Your task to perform on an android device: create a new album in the google photos Image 0: 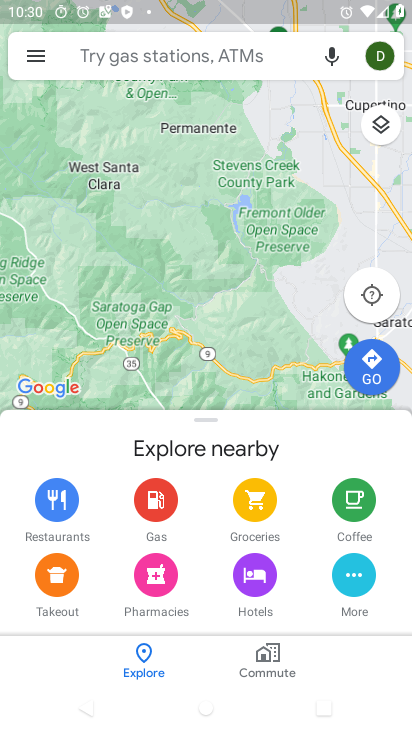
Step 0: press home button
Your task to perform on an android device: create a new album in the google photos Image 1: 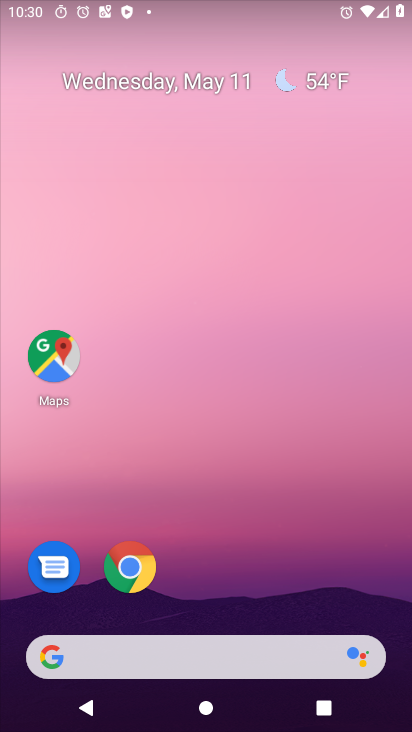
Step 1: drag from (196, 544) to (249, 229)
Your task to perform on an android device: create a new album in the google photos Image 2: 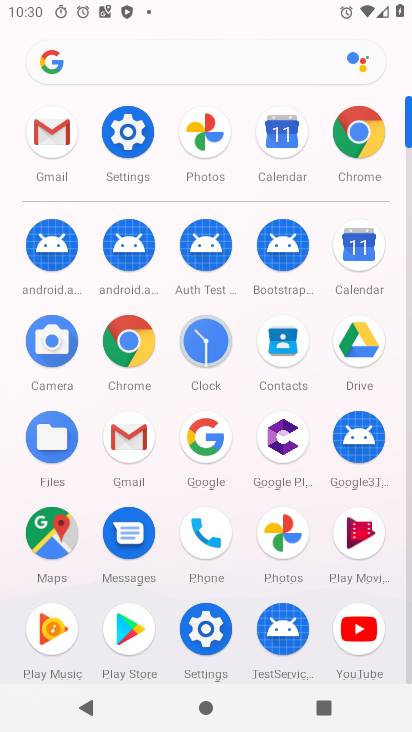
Step 2: click (270, 536)
Your task to perform on an android device: create a new album in the google photos Image 3: 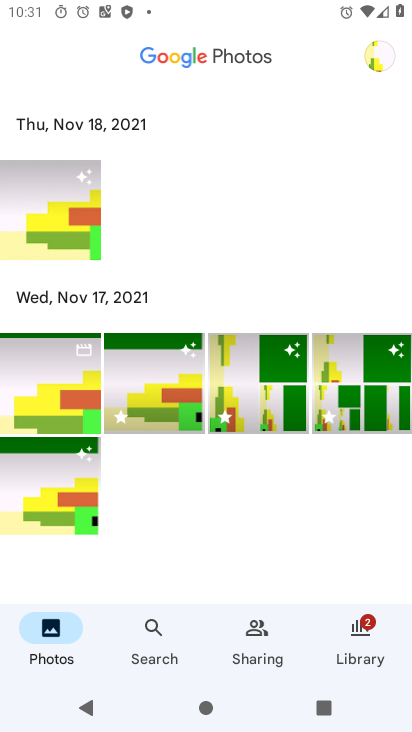
Step 3: click (355, 630)
Your task to perform on an android device: create a new album in the google photos Image 4: 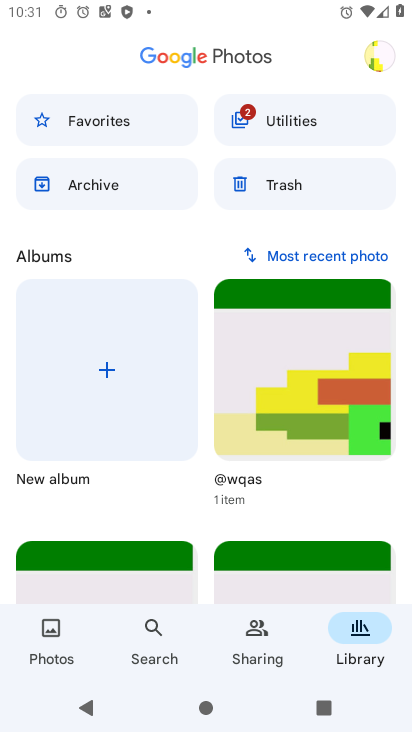
Step 4: click (104, 359)
Your task to perform on an android device: create a new album in the google photos Image 5: 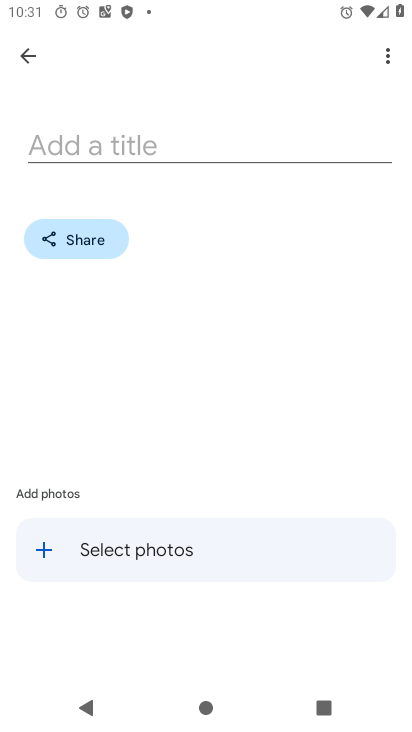
Step 5: click (169, 145)
Your task to perform on an android device: create a new album in the google photos Image 6: 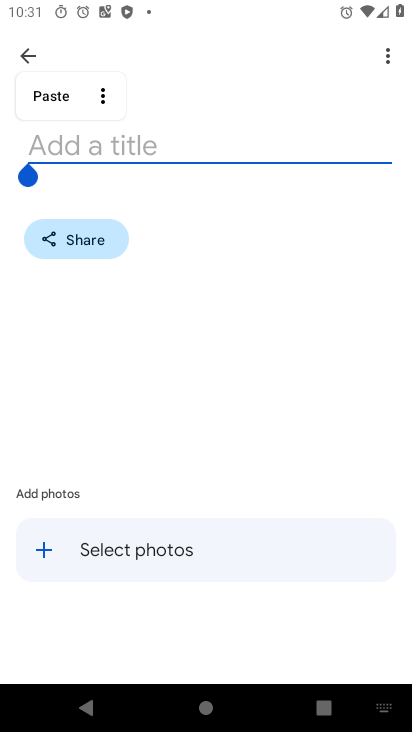
Step 6: type "pubb"
Your task to perform on an android device: create a new album in the google photos Image 7: 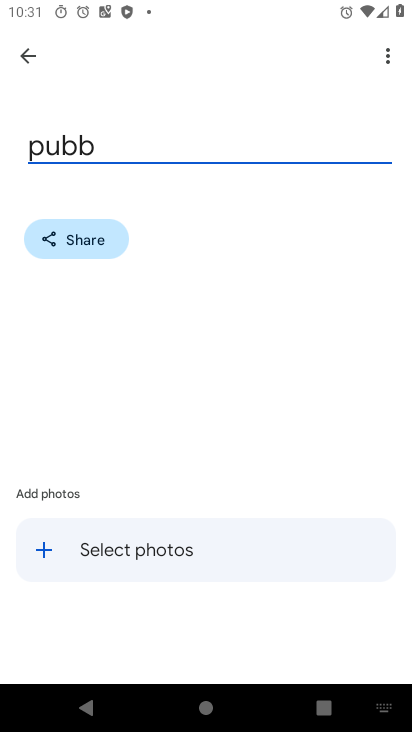
Step 7: click (39, 550)
Your task to perform on an android device: create a new album in the google photos Image 8: 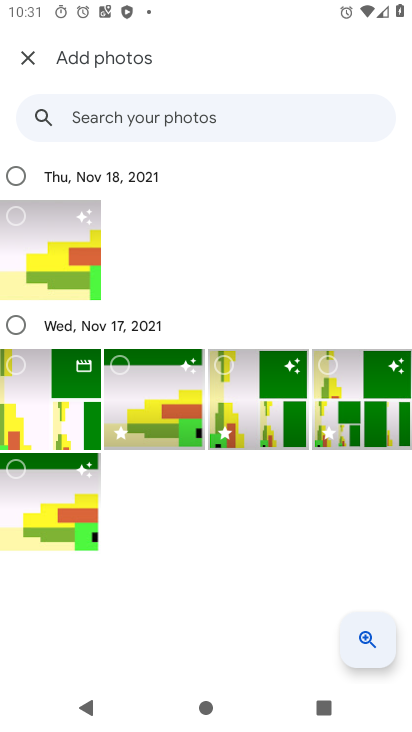
Step 8: click (17, 391)
Your task to perform on an android device: create a new album in the google photos Image 9: 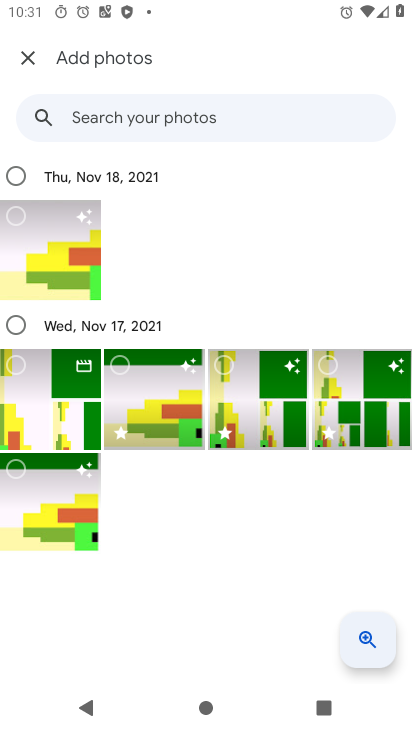
Step 9: click (146, 388)
Your task to perform on an android device: create a new album in the google photos Image 10: 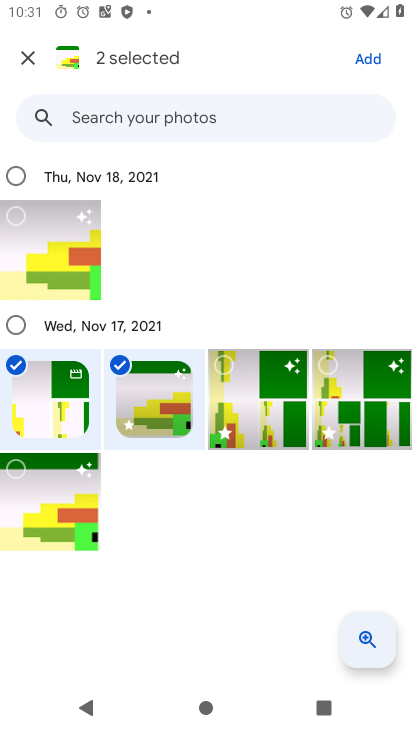
Step 10: click (26, 489)
Your task to perform on an android device: create a new album in the google photos Image 11: 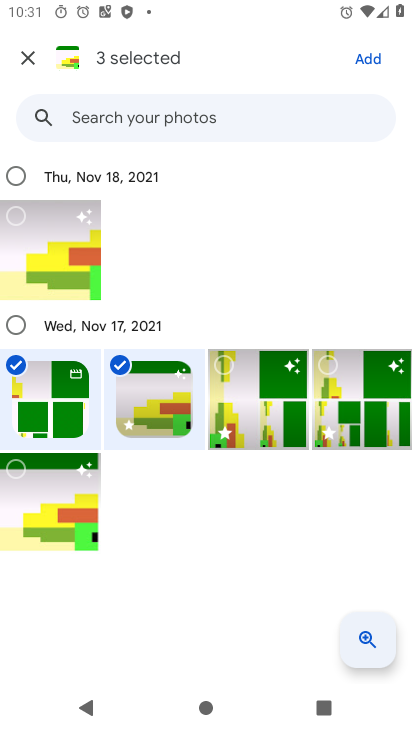
Step 11: click (353, 381)
Your task to perform on an android device: create a new album in the google photos Image 12: 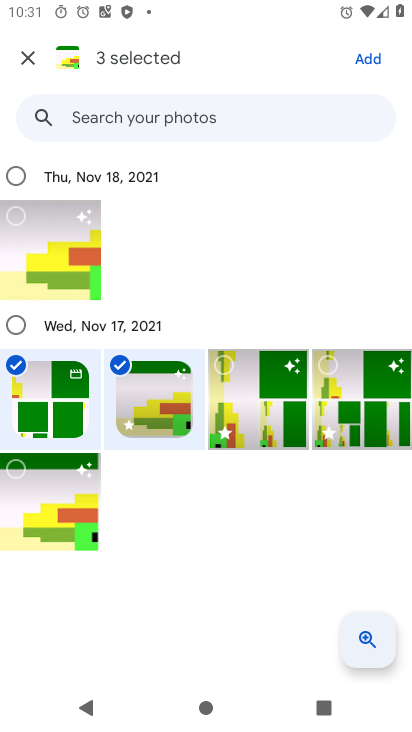
Step 12: click (376, 53)
Your task to perform on an android device: create a new album in the google photos Image 13: 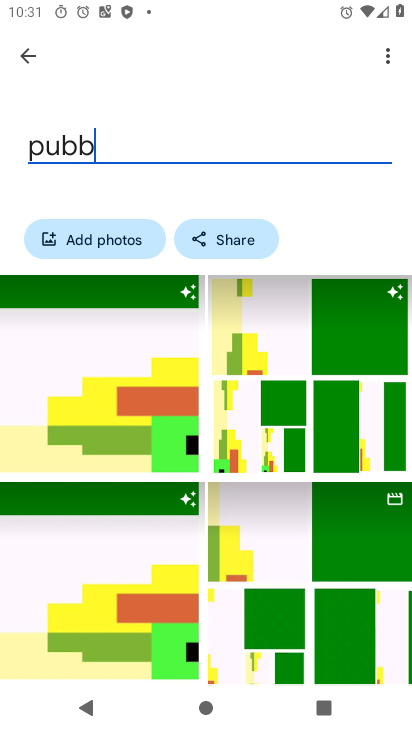
Step 13: click (385, 47)
Your task to perform on an android device: create a new album in the google photos Image 14: 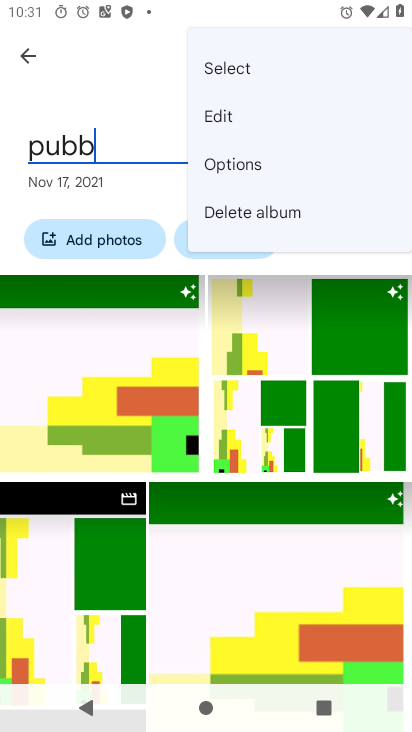
Step 14: task complete